Your task to perform on an android device: Clear all items from cart on target.com. Add "bose quietcomfort 35" to the cart on target.com Image 0: 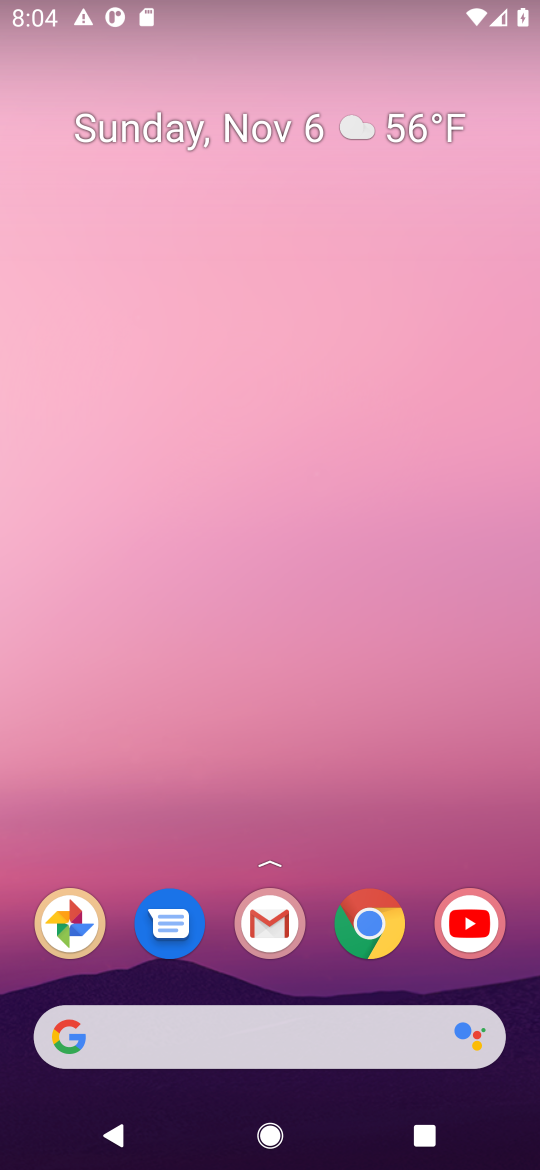
Step 0: click (370, 935)
Your task to perform on an android device: Clear all items from cart on target.com. Add "bose quietcomfort 35" to the cart on target.com Image 1: 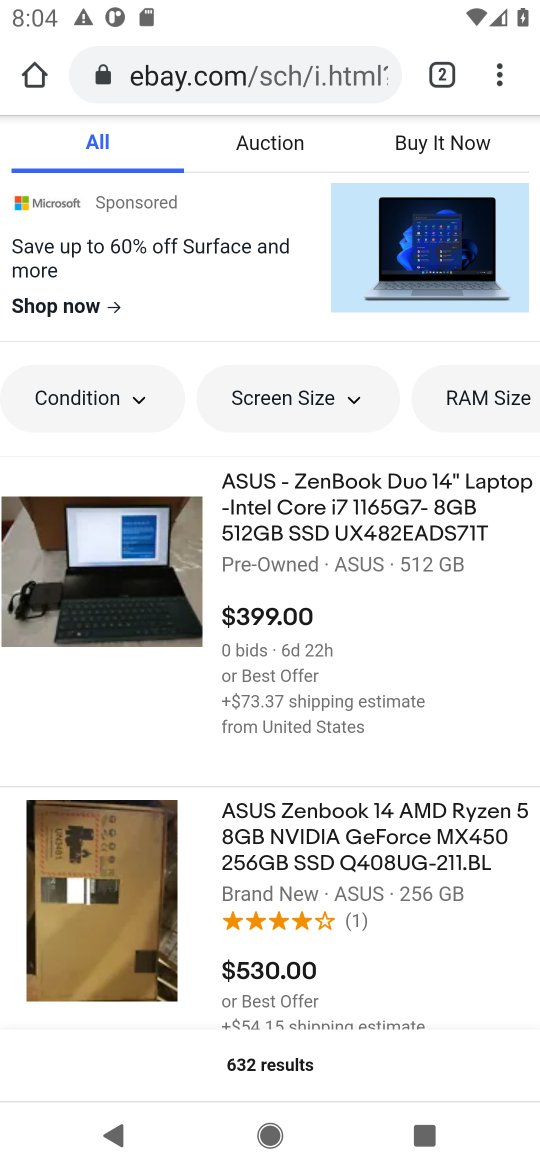
Step 1: click (225, 81)
Your task to perform on an android device: Clear all items from cart on target.com. Add "bose quietcomfort 35" to the cart on target.com Image 2: 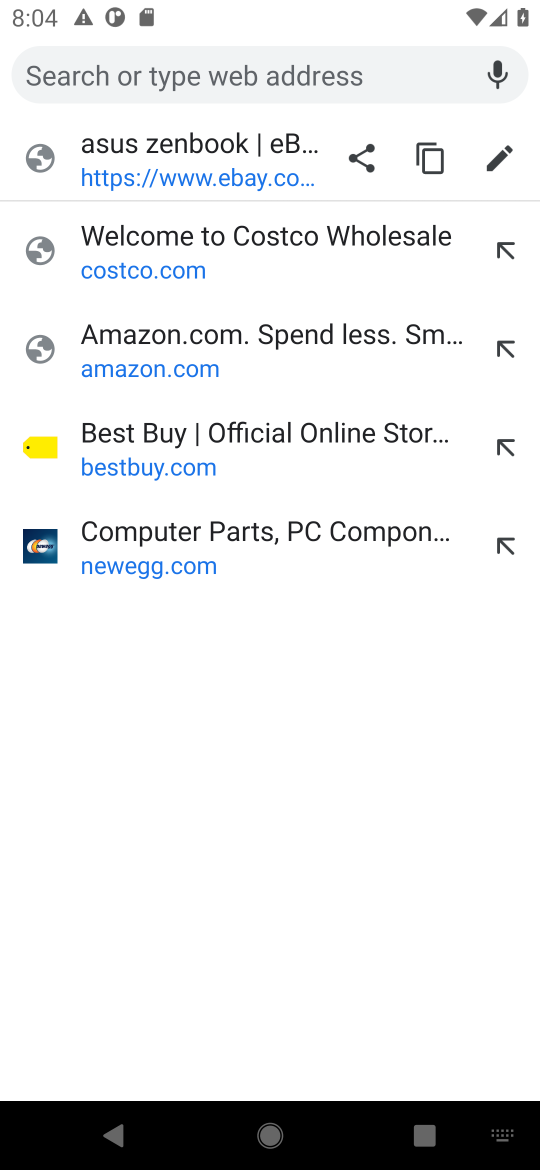
Step 2: type "target.com"
Your task to perform on an android device: Clear all items from cart on target.com. Add "bose quietcomfort 35" to the cart on target.com Image 3: 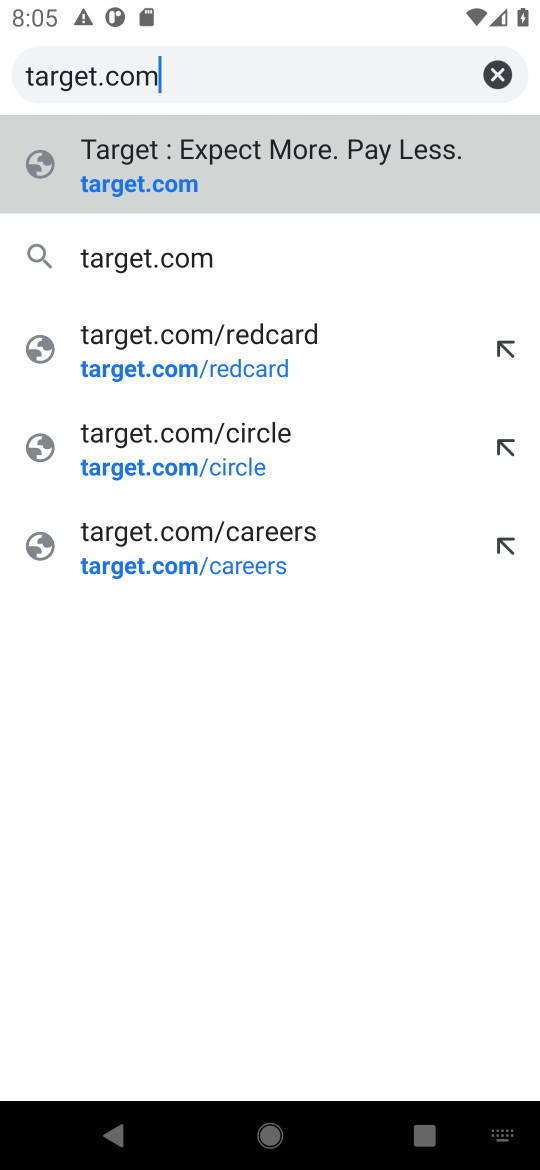
Step 3: click (128, 196)
Your task to perform on an android device: Clear all items from cart on target.com. Add "bose quietcomfort 35" to the cart on target.com Image 4: 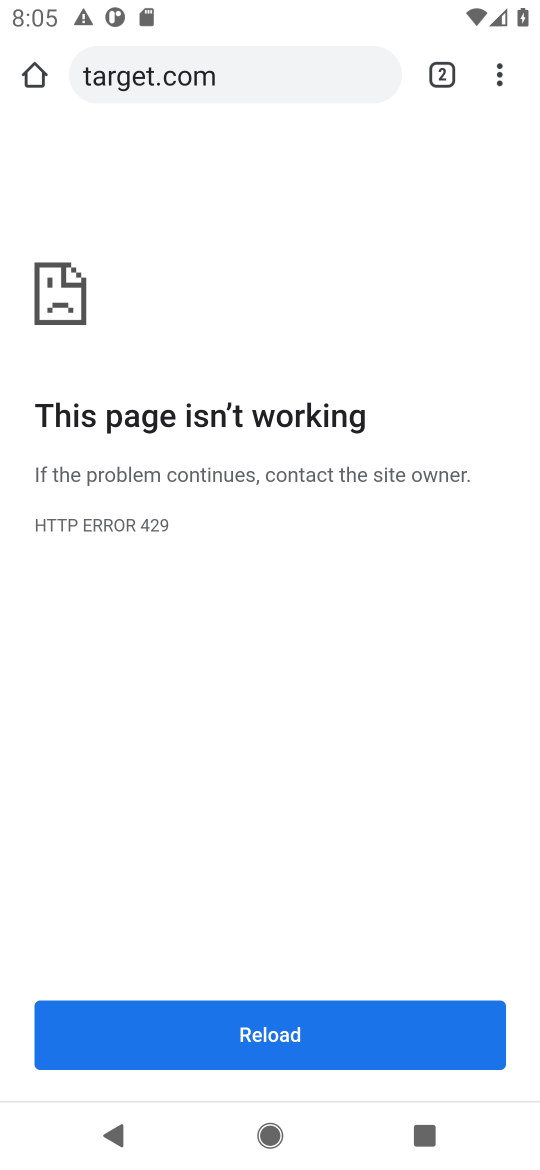
Step 4: press back button
Your task to perform on an android device: Clear all items from cart on target.com. Add "bose quietcomfort 35" to the cart on target.com Image 5: 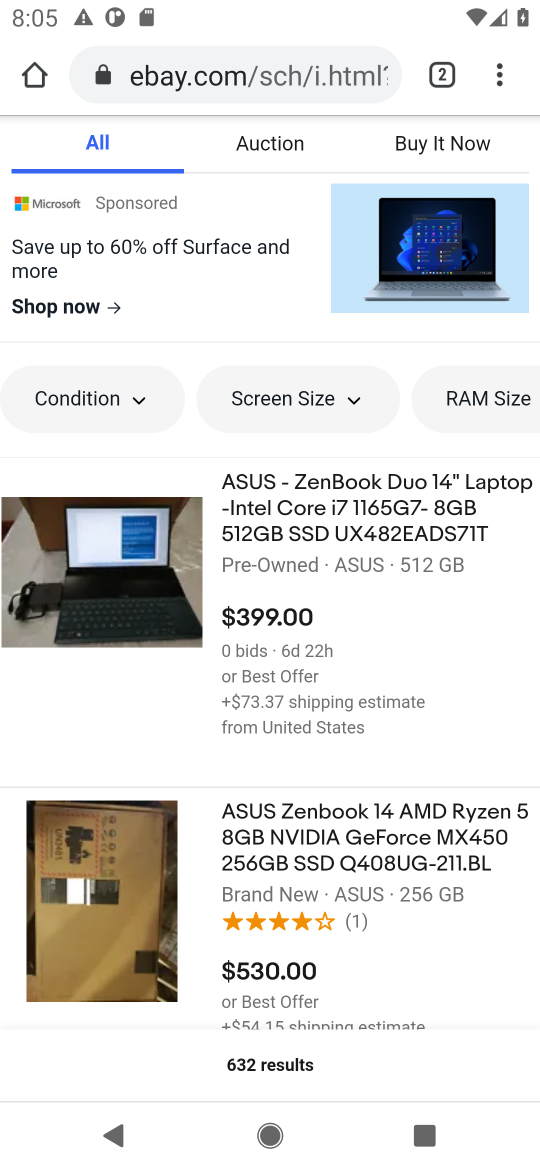
Step 5: click (250, 79)
Your task to perform on an android device: Clear all items from cart on target.com. Add "bose quietcomfort 35" to the cart on target.com Image 6: 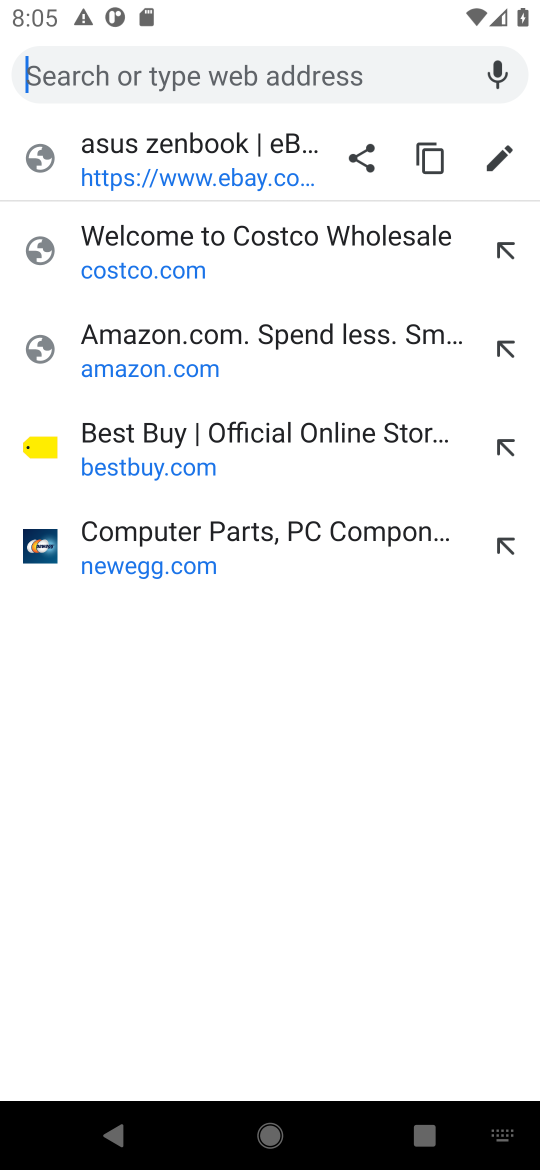
Step 6: type "target.com"
Your task to perform on an android device: Clear all items from cart on target.com. Add "bose quietcomfort 35" to the cart on target.com Image 7: 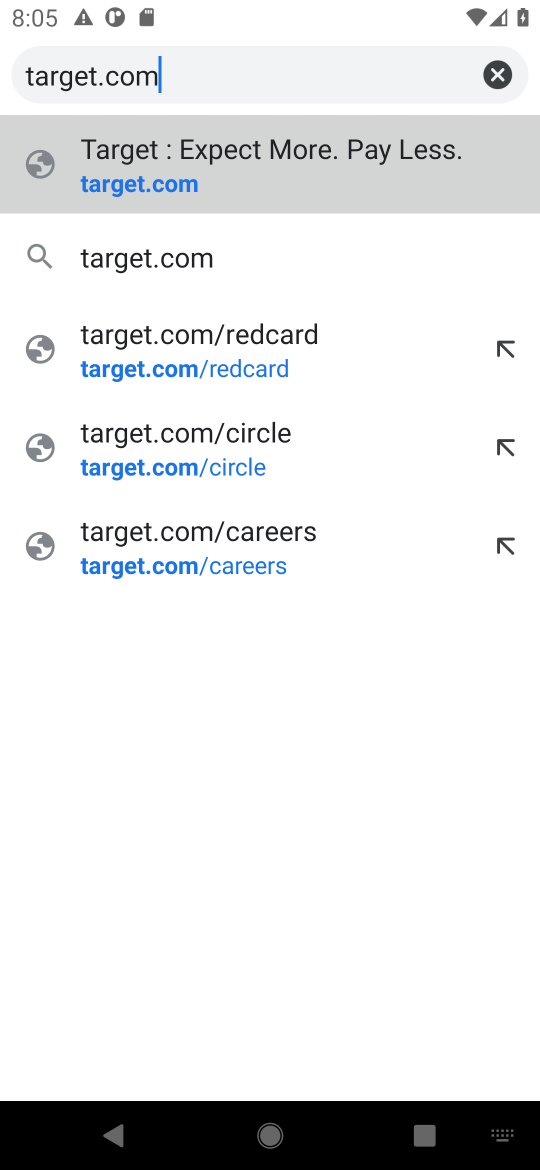
Step 7: click (114, 254)
Your task to perform on an android device: Clear all items from cart on target.com. Add "bose quietcomfort 35" to the cart on target.com Image 8: 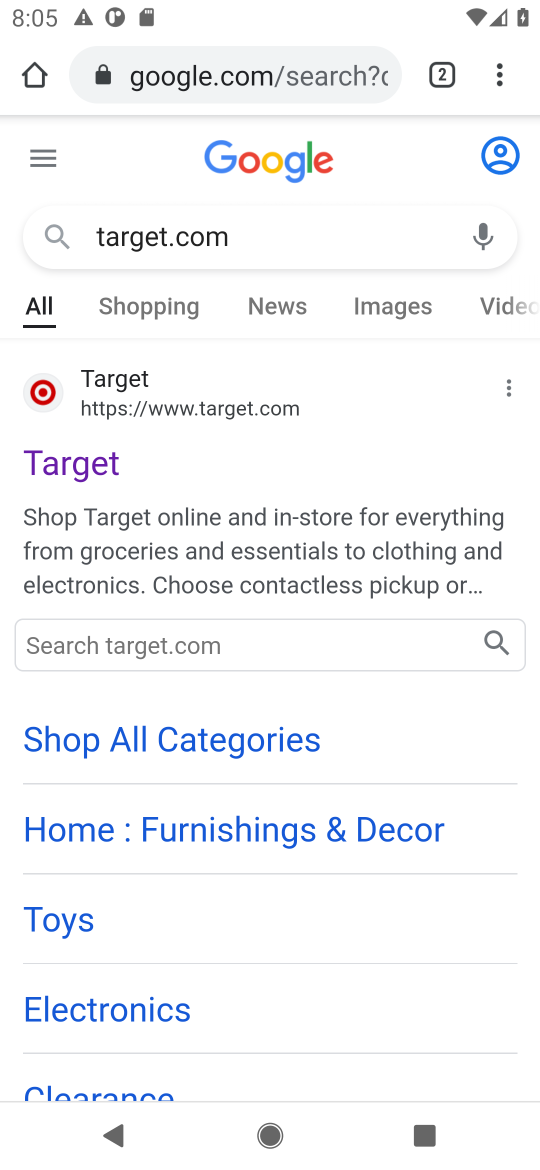
Step 8: click (76, 471)
Your task to perform on an android device: Clear all items from cart on target.com. Add "bose quietcomfort 35" to the cart on target.com Image 9: 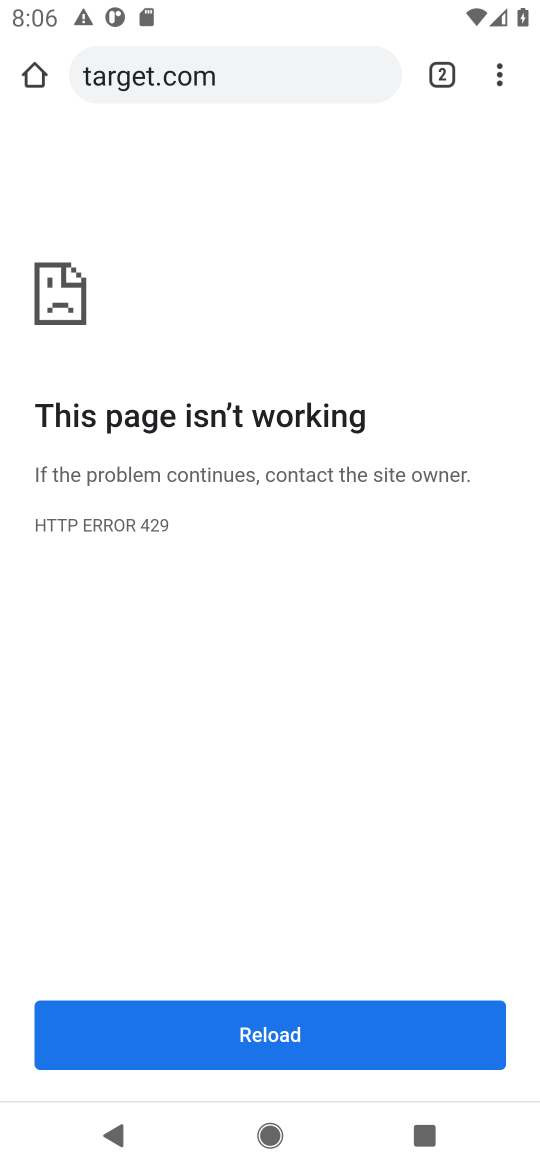
Step 9: task complete